Your task to perform on an android device: turn on location history Image 0: 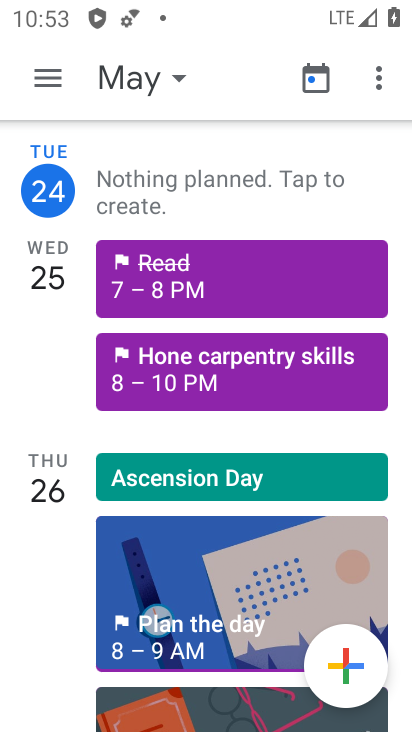
Step 0: press home button
Your task to perform on an android device: turn on location history Image 1: 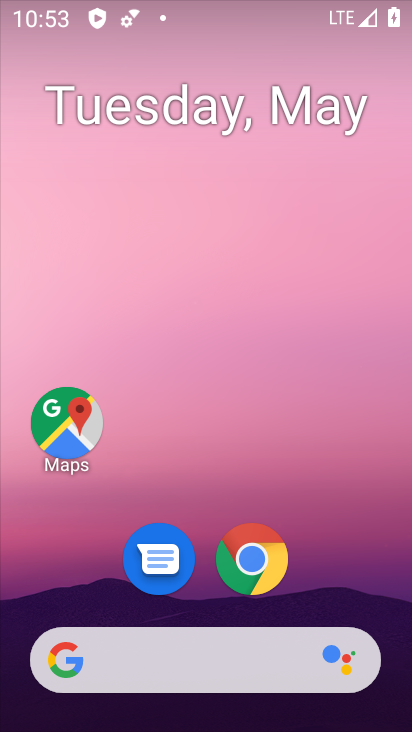
Step 1: drag from (343, 573) to (340, 123)
Your task to perform on an android device: turn on location history Image 2: 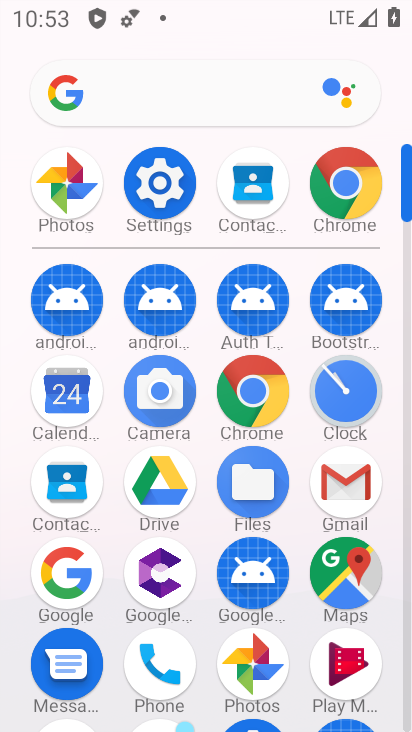
Step 2: click (164, 193)
Your task to perform on an android device: turn on location history Image 3: 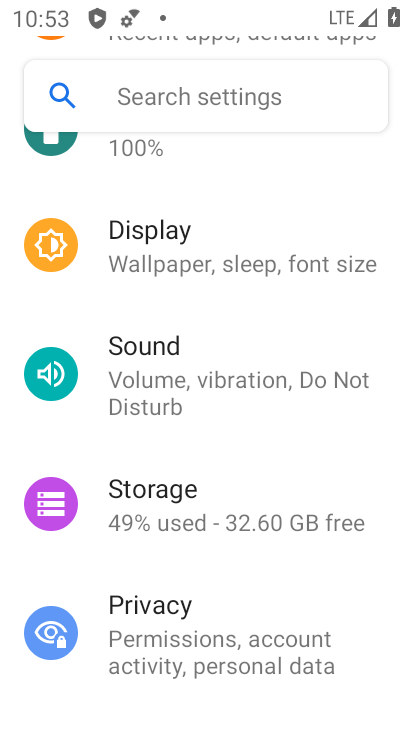
Step 3: drag from (259, 605) to (319, 287)
Your task to perform on an android device: turn on location history Image 4: 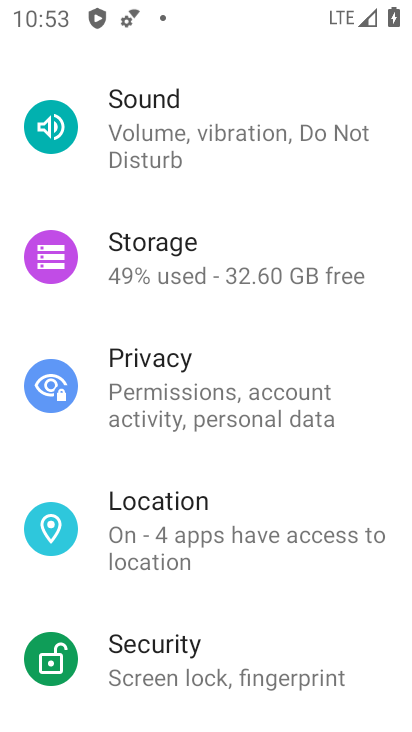
Step 4: click (262, 518)
Your task to perform on an android device: turn on location history Image 5: 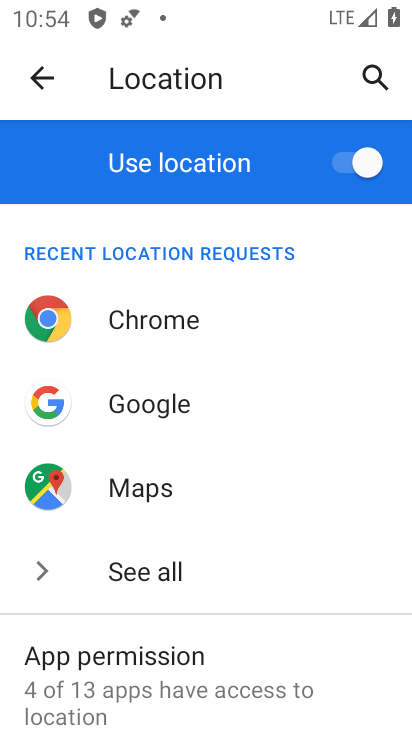
Step 5: drag from (267, 617) to (324, 348)
Your task to perform on an android device: turn on location history Image 6: 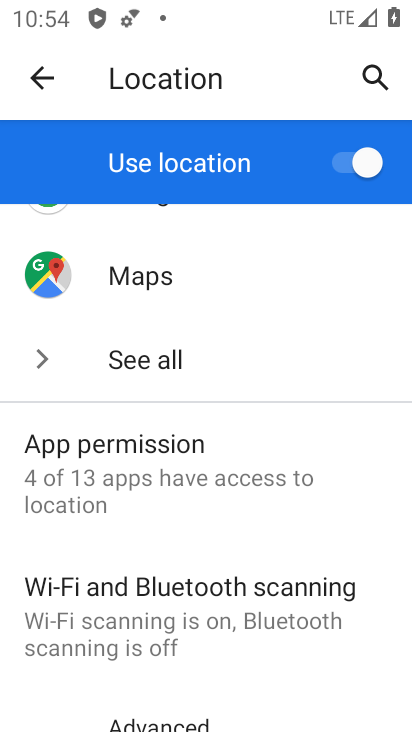
Step 6: drag from (299, 654) to (295, 295)
Your task to perform on an android device: turn on location history Image 7: 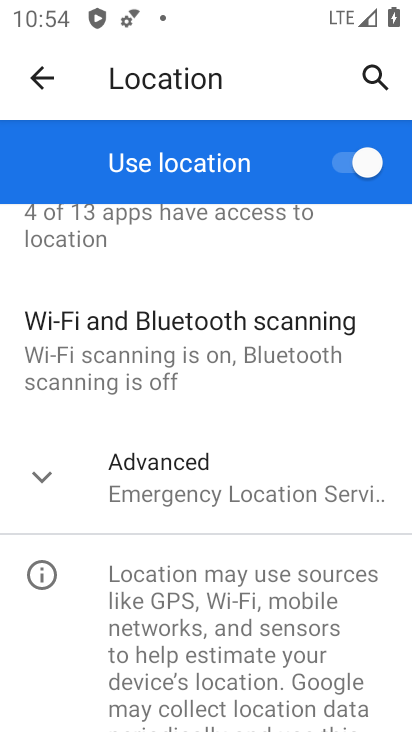
Step 7: click (317, 495)
Your task to perform on an android device: turn on location history Image 8: 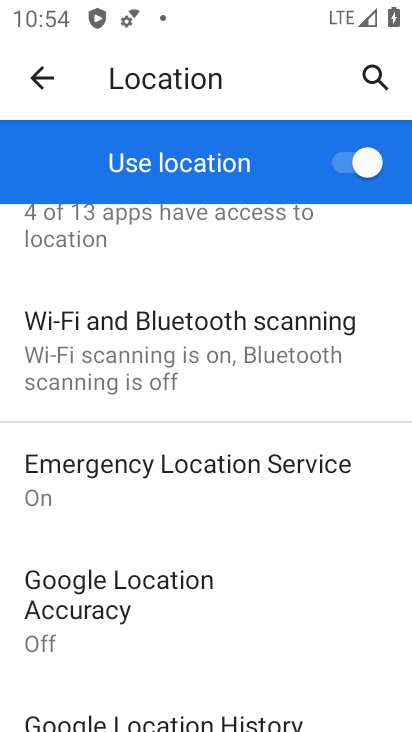
Step 8: drag from (283, 646) to (290, 245)
Your task to perform on an android device: turn on location history Image 9: 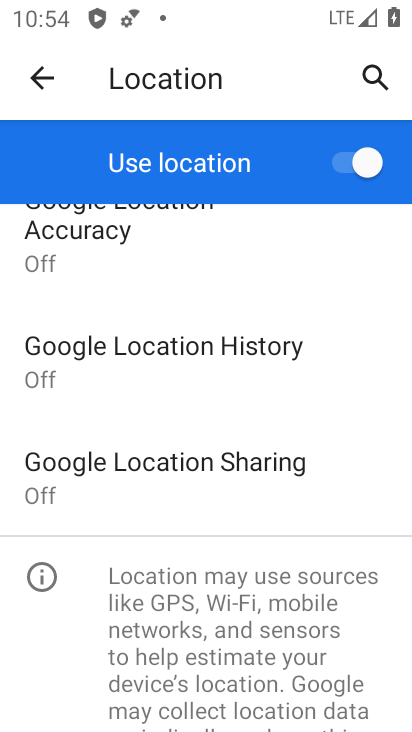
Step 9: drag from (288, 255) to (278, 545)
Your task to perform on an android device: turn on location history Image 10: 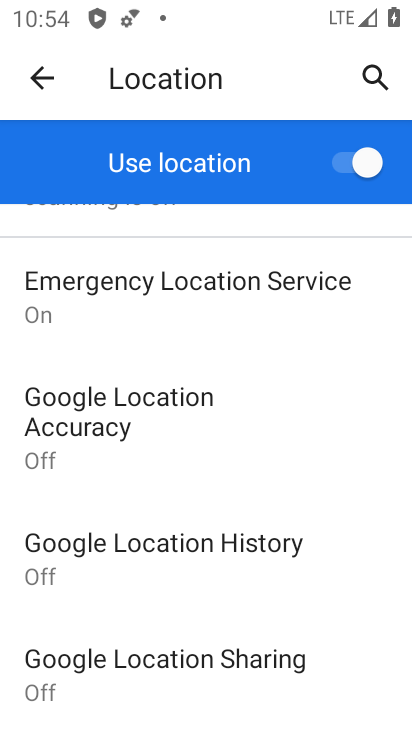
Step 10: click (106, 547)
Your task to perform on an android device: turn on location history Image 11: 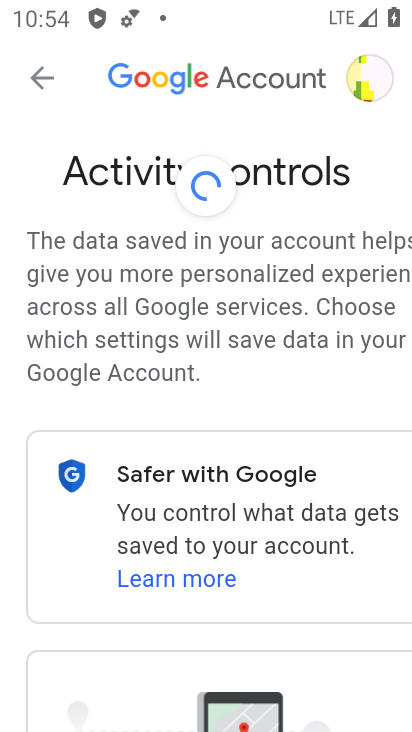
Step 11: task complete